Your task to perform on an android device: change the clock display to digital Image 0: 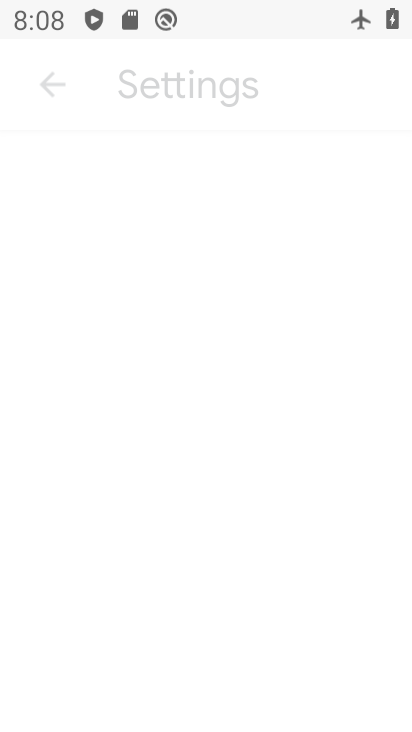
Step 0: drag from (304, 499) to (319, 268)
Your task to perform on an android device: change the clock display to digital Image 1: 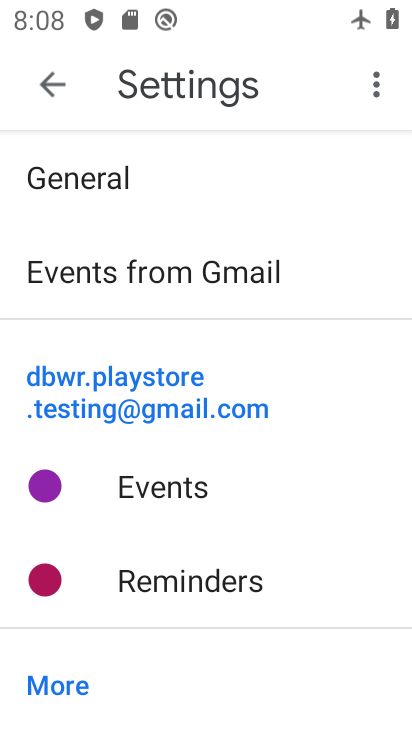
Step 1: press home button
Your task to perform on an android device: change the clock display to digital Image 2: 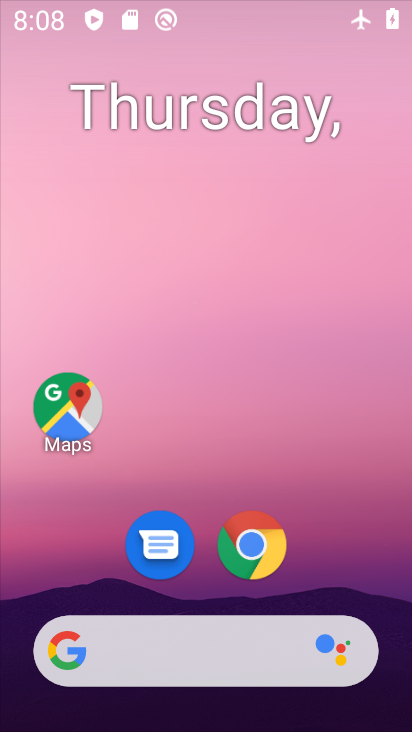
Step 2: drag from (201, 590) to (250, 270)
Your task to perform on an android device: change the clock display to digital Image 3: 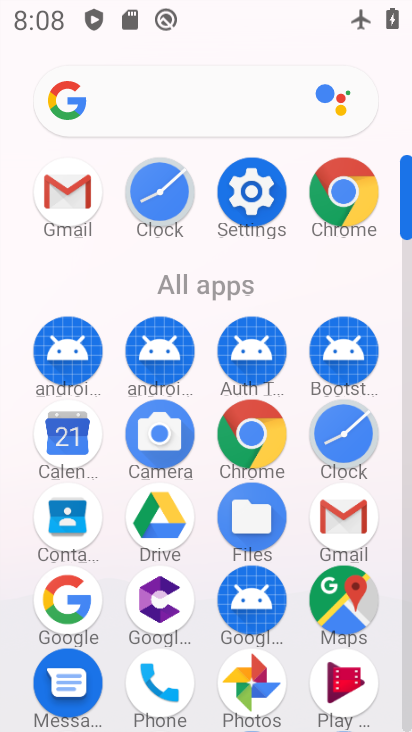
Step 3: click (326, 432)
Your task to perform on an android device: change the clock display to digital Image 4: 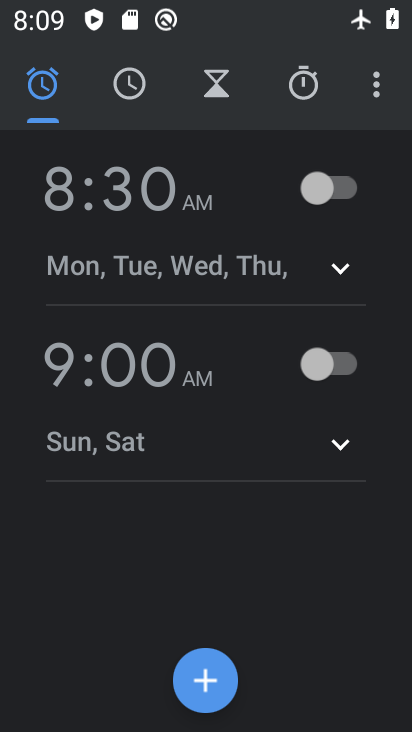
Step 4: click (361, 83)
Your task to perform on an android device: change the clock display to digital Image 5: 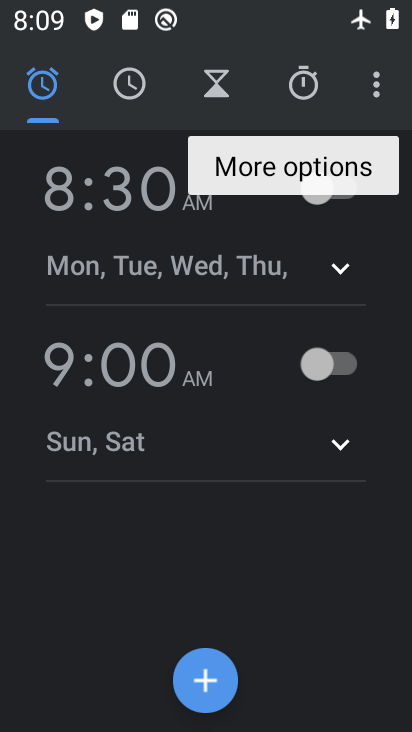
Step 5: click (368, 84)
Your task to perform on an android device: change the clock display to digital Image 6: 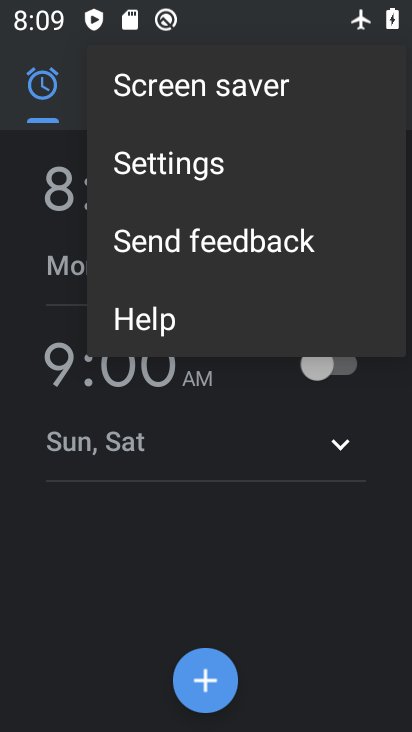
Step 6: click (257, 154)
Your task to perform on an android device: change the clock display to digital Image 7: 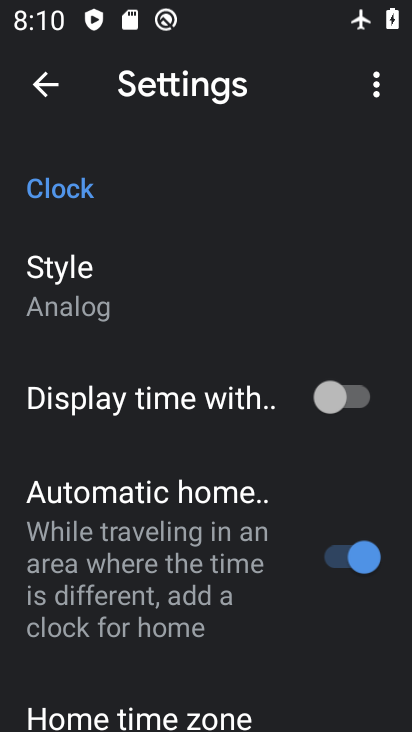
Step 7: click (163, 275)
Your task to perform on an android device: change the clock display to digital Image 8: 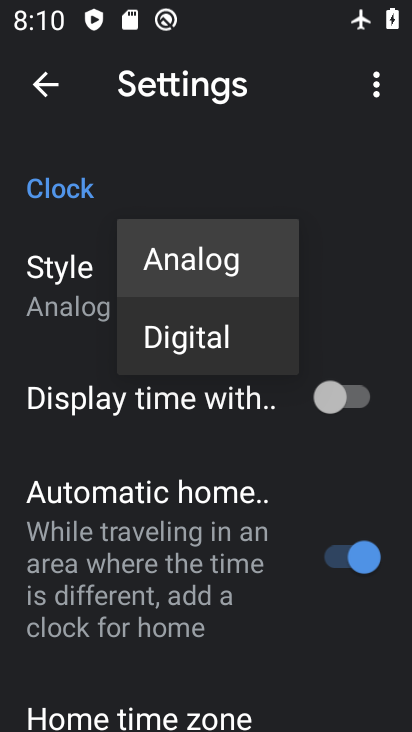
Step 8: drag from (157, 260) to (175, 343)
Your task to perform on an android device: change the clock display to digital Image 9: 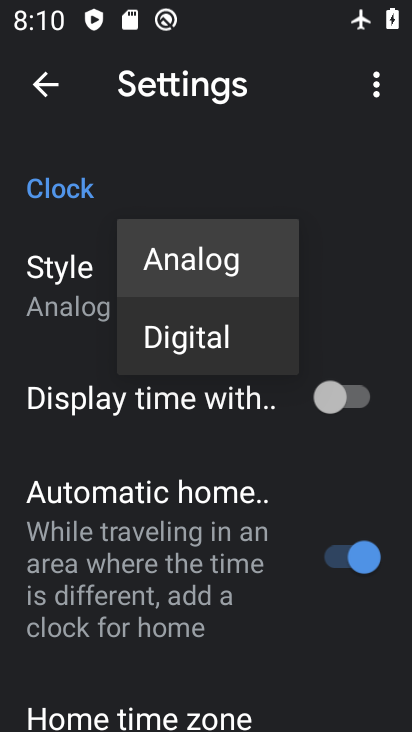
Step 9: click (175, 343)
Your task to perform on an android device: change the clock display to digital Image 10: 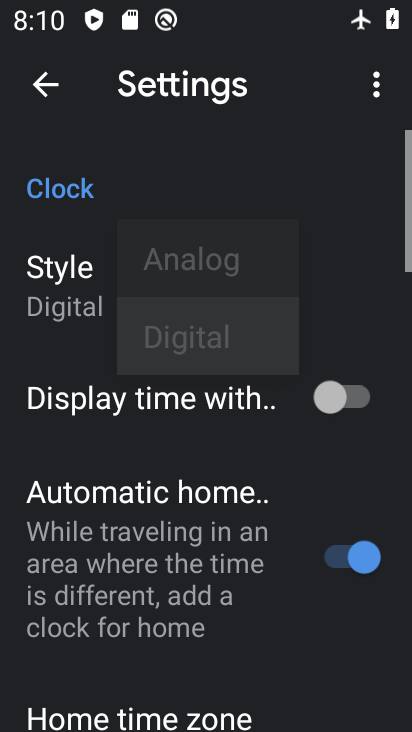
Step 10: click (175, 343)
Your task to perform on an android device: change the clock display to digital Image 11: 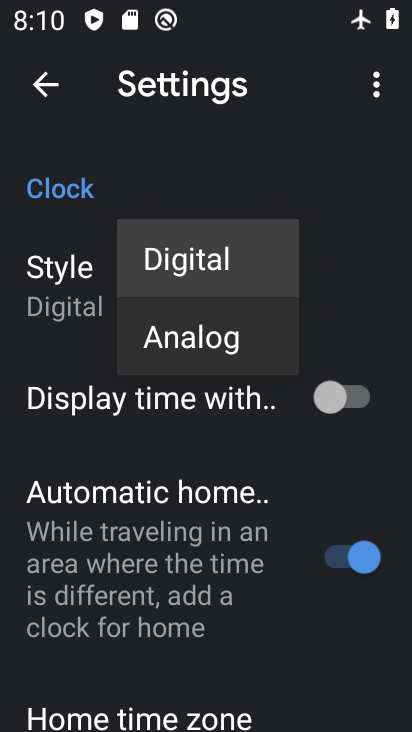
Step 11: click (224, 261)
Your task to perform on an android device: change the clock display to digital Image 12: 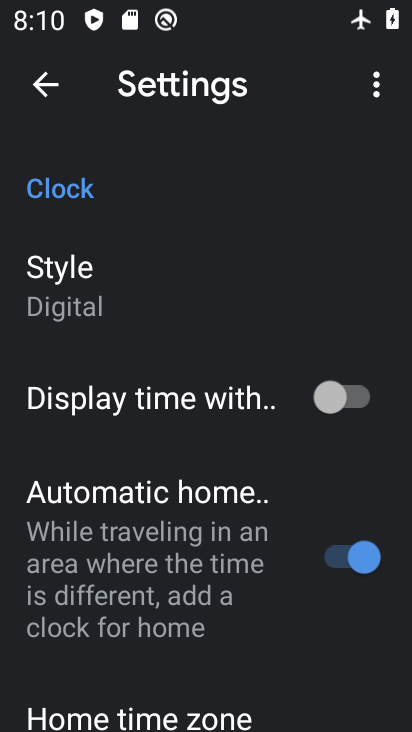
Step 12: task complete